Your task to perform on an android device: set an alarm Image 0: 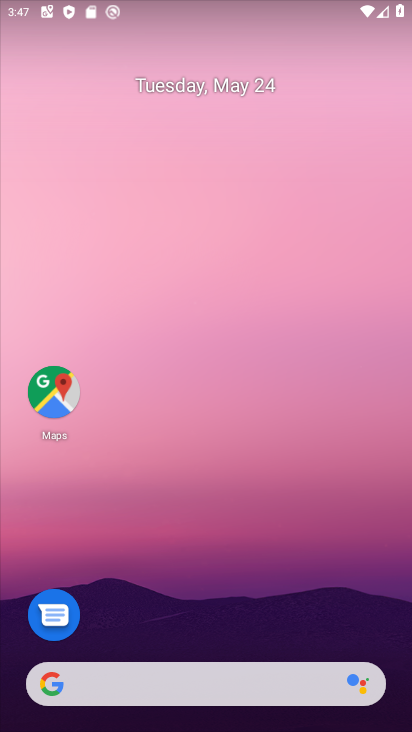
Step 0: drag from (180, 647) to (289, 122)
Your task to perform on an android device: set an alarm Image 1: 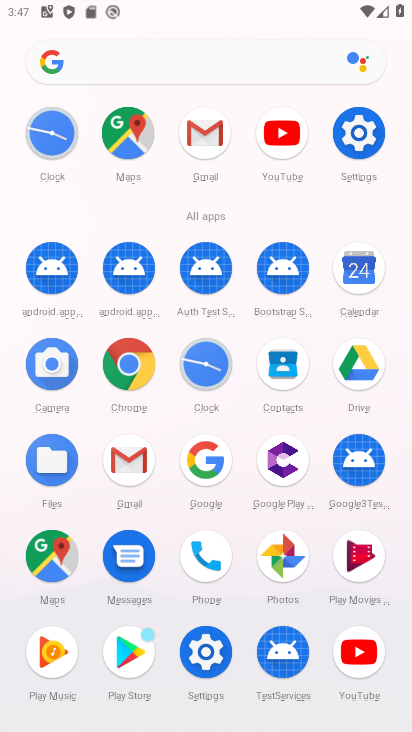
Step 1: click (206, 360)
Your task to perform on an android device: set an alarm Image 2: 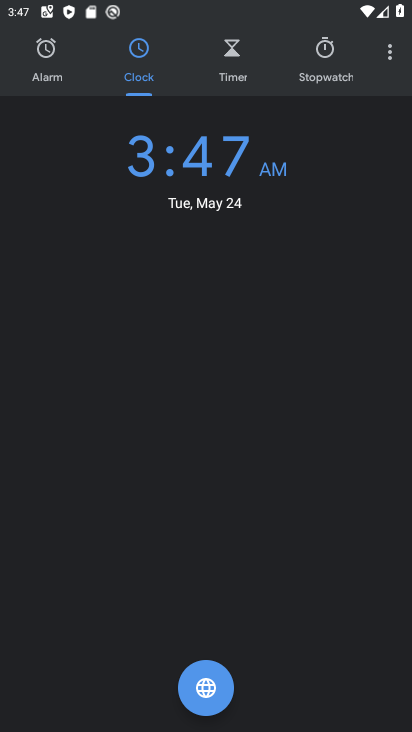
Step 2: click (53, 82)
Your task to perform on an android device: set an alarm Image 3: 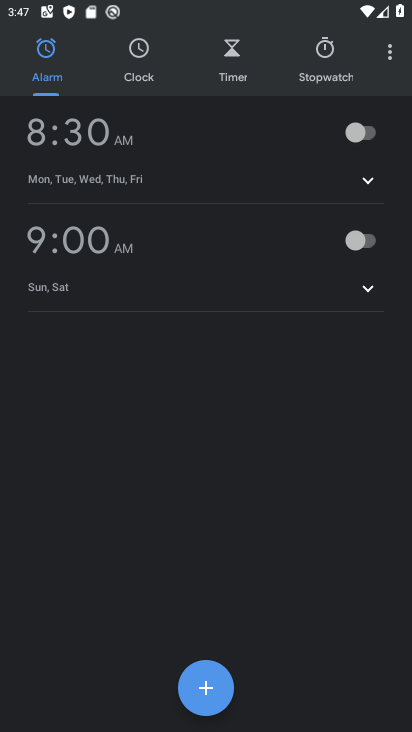
Step 3: click (372, 134)
Your task to perform on an android device: set an alarm Image 4: 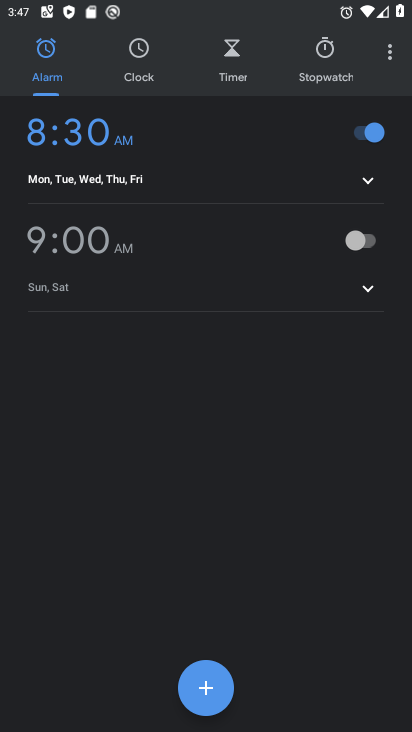
Step 4: task complete